Your task to perform on an android device: toggle wifi Image 0: 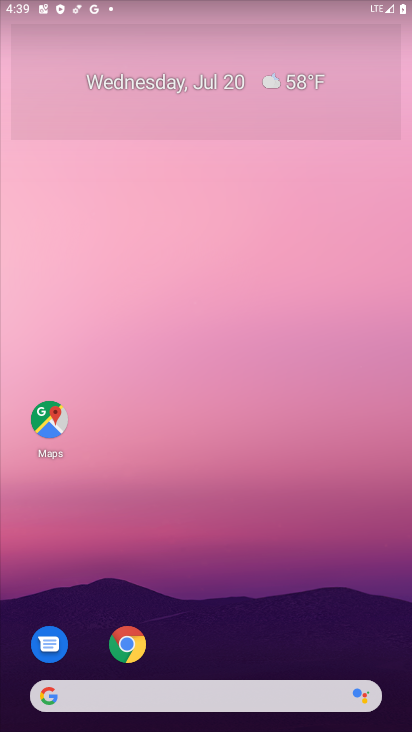
Step 0: drag from (194, 7) to (208, 576)
Your task to perform on an android device: toggle wifi Image 1: 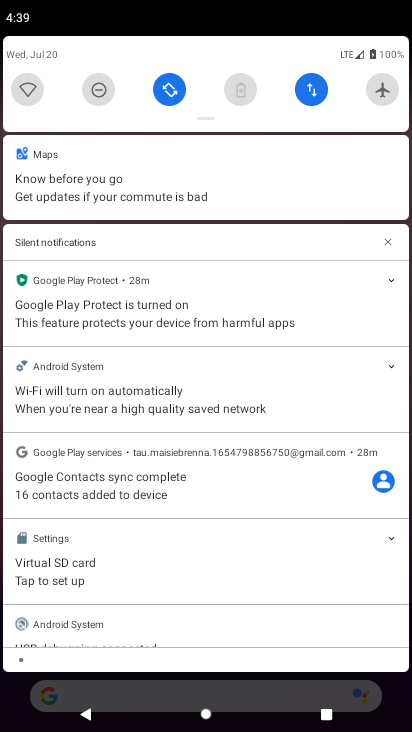
Step 1: click (25, 92)
Your task to perform on an android device: toggle wifi Image 2: 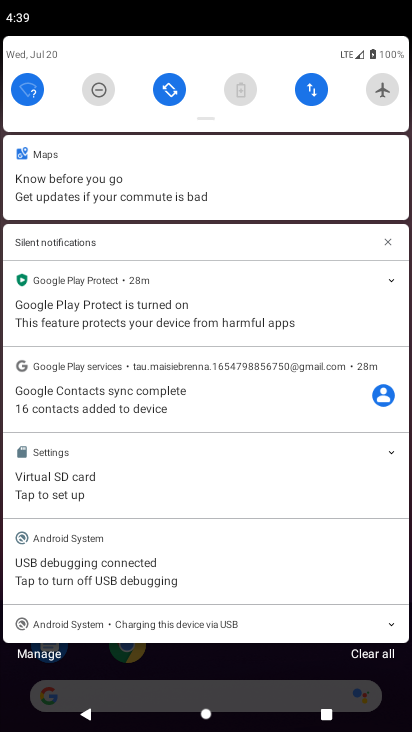
Step 2: task complete